Your task to perform on an android device: change the clock display to show seconds Image 0: 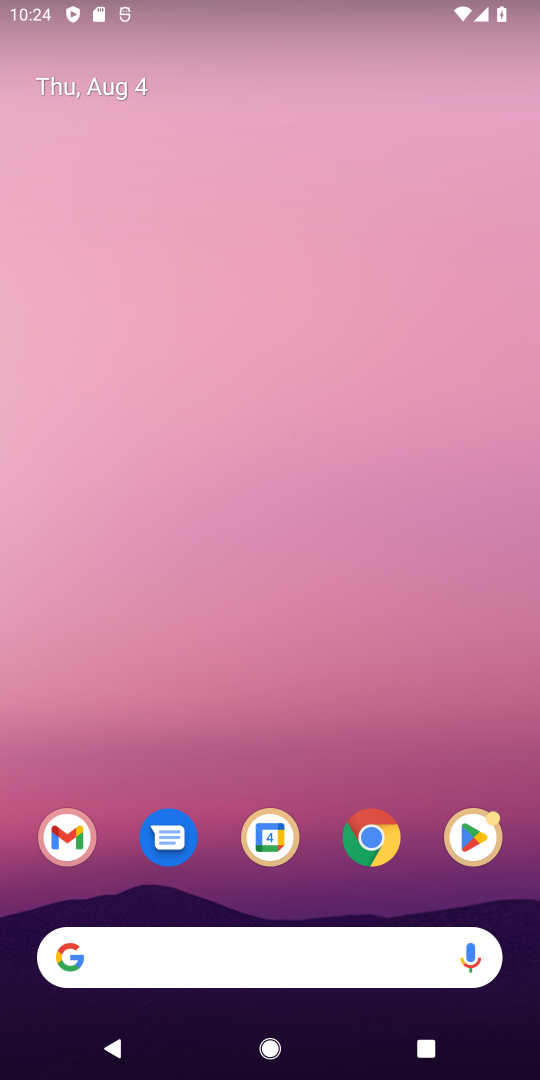
Step 0: drag from (411, 894) to (197, 86)
Your task to perform on an android device: change the clock display to show seconds Image 1: 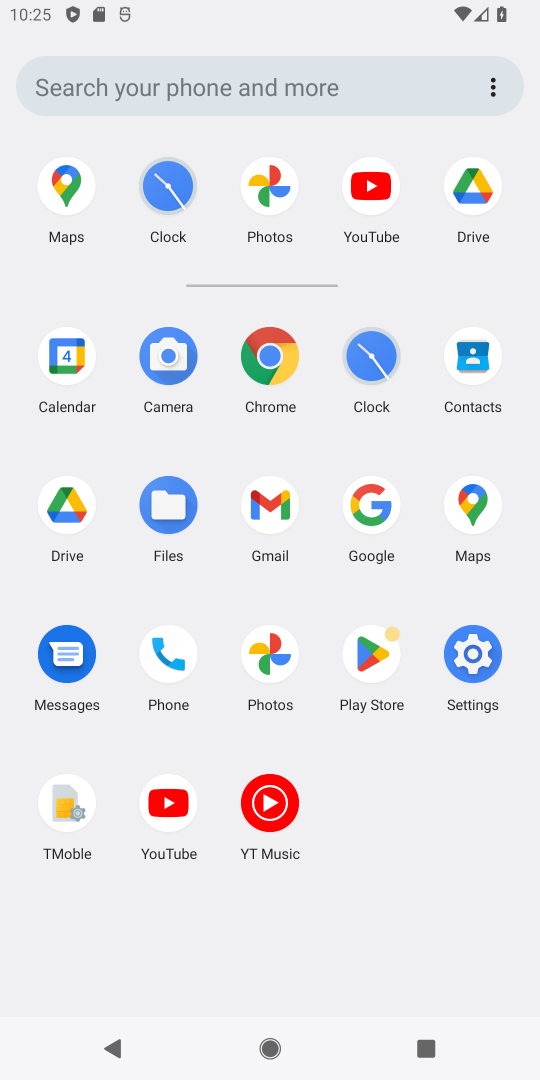
Step 1: click (389, 375)
Your task to perform on an android device: change the clock display to show seconds Image 2: 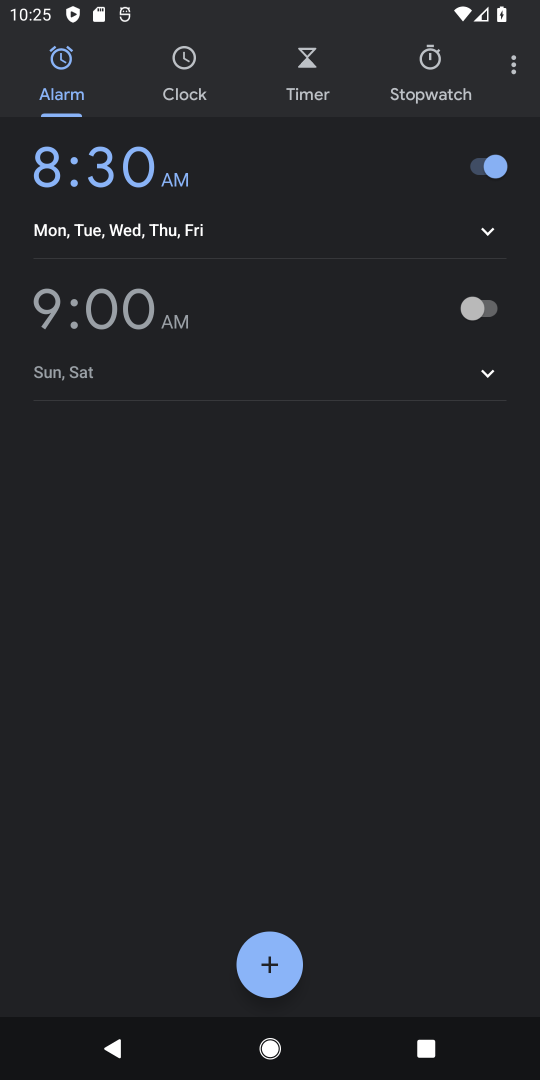
Step 2: click (519, 64)
Your task to perform on an android device: change the clock display to show seconds Image 3: 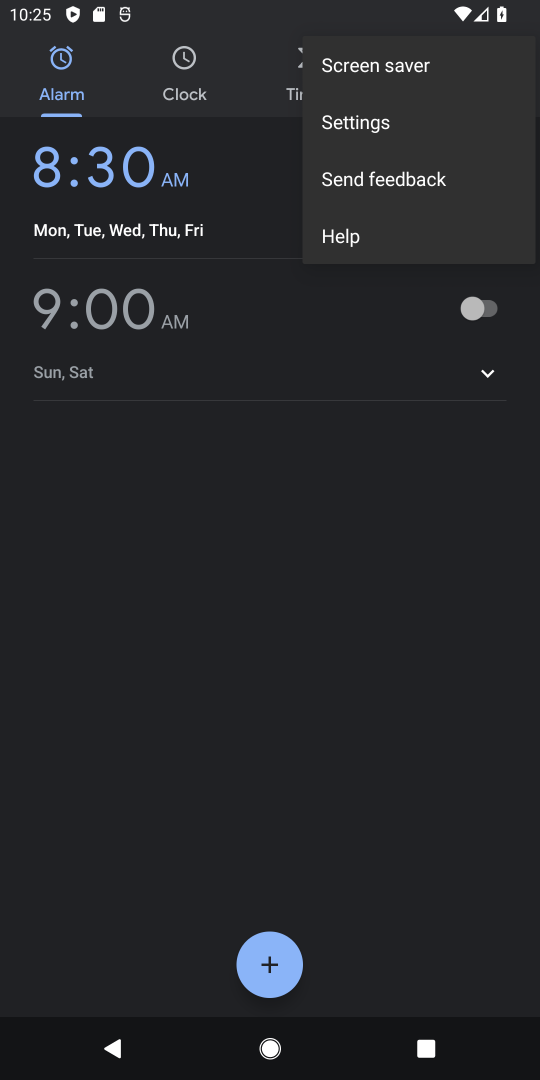
Step 3: click (397, 129)
Your task to perform on an android device: change the clock display to show seconds Image 4: 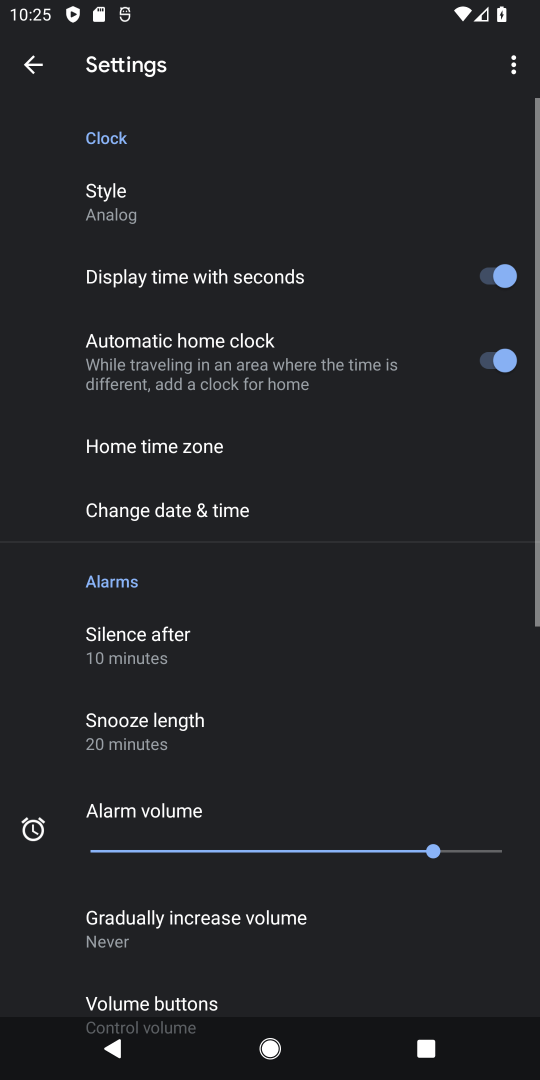
Step 4: click (457, 266)
Your task to perform on an android device: change the clock display to show seconds Image 5: 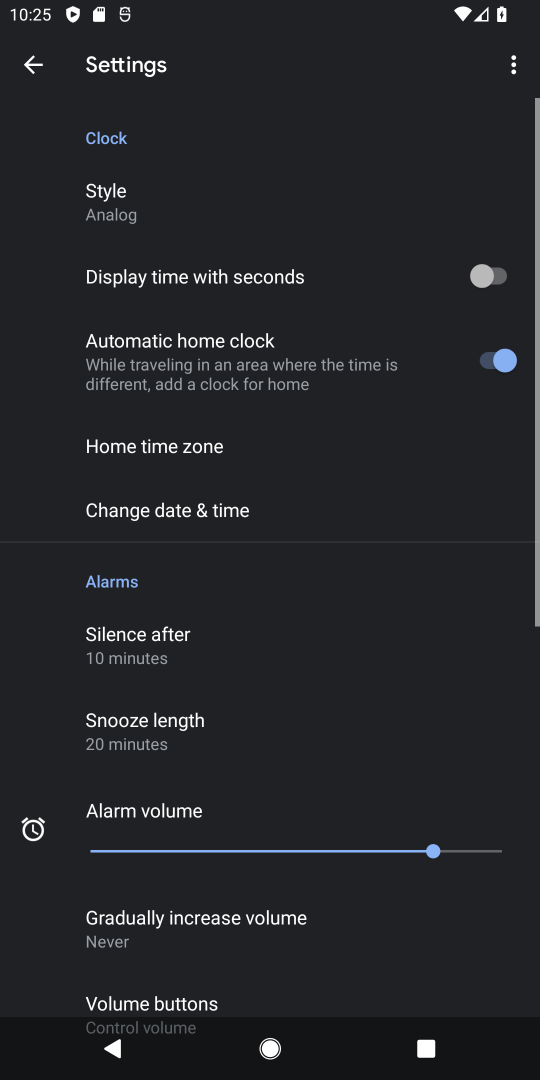
Step 5: task complete